Your task to perform on an android device: delete browsing data in the chrome app Image 0: 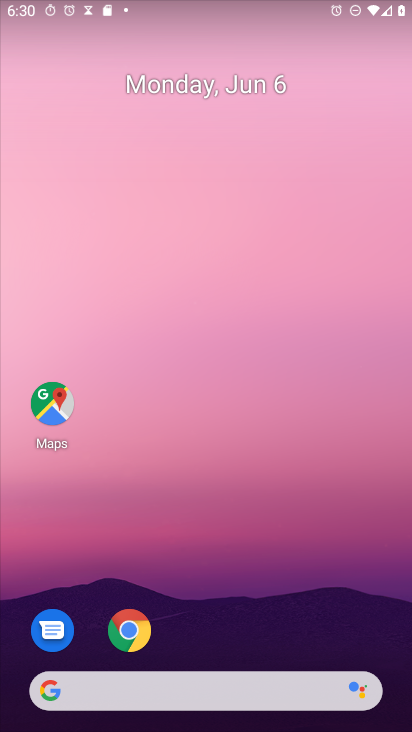
Step 0: click (128, 634)
Your task to perform on an android device: delete browsing data in the chrome app Image 1: 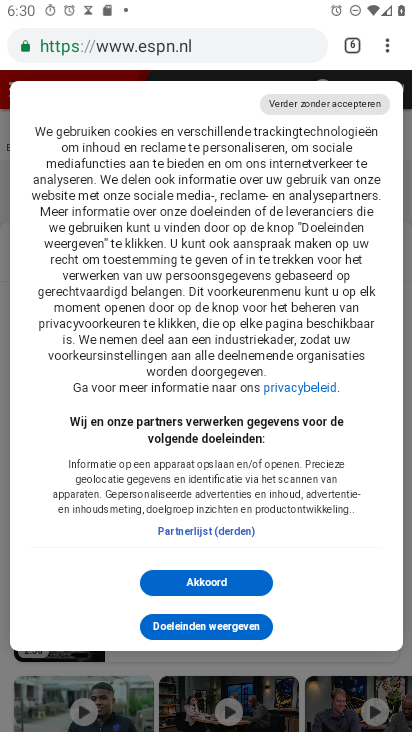
Step 1: click (383, 52)
Your task to perform on an android device: delete browsing data in the chrome app Image 2: 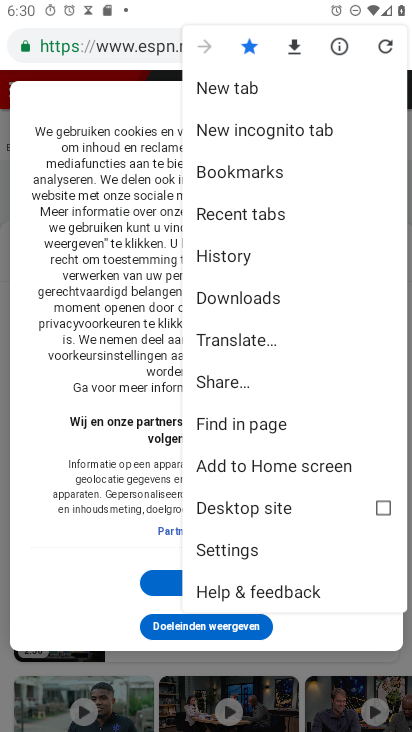
Step 2: click (223, 258)
Your task to perform on an android device: delete browsing data in the chrome app Image 3: 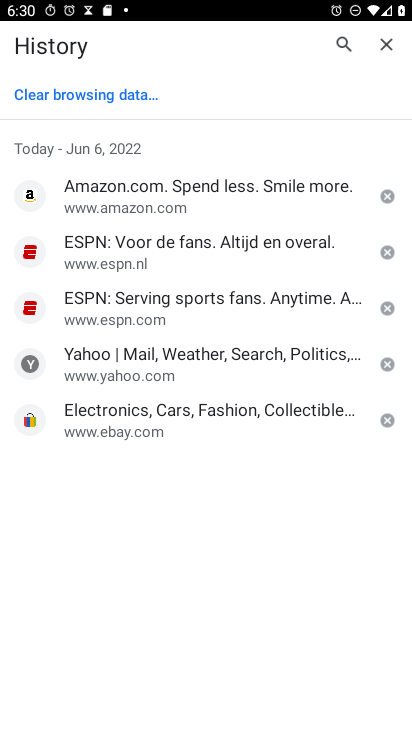
Step 3: click (110, 90)
Your task to perform on an android device: delete browsing data in the chrome app Image 4: 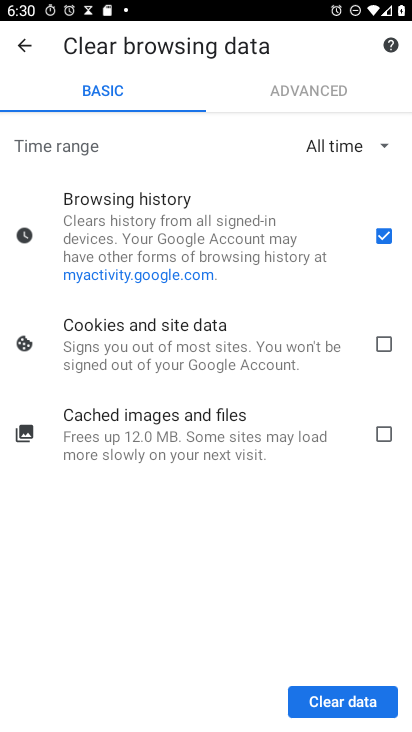
Step 4: click (325, 697)
Your task to perform on an android device: delete browsing data in the chrome app Image 5: 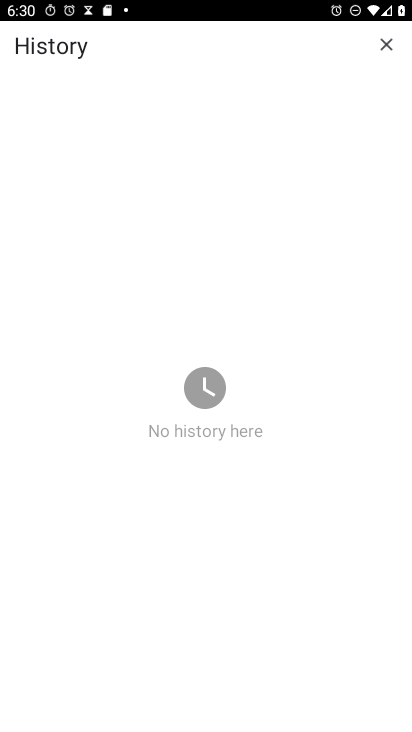
Step 5: task complete